Your task to perform on an android device: Find coffee shops on Maps Image 0: 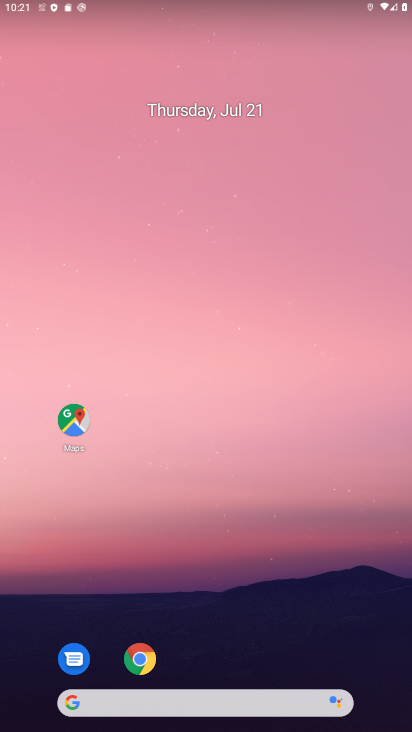
Step 0: drag from (181, 671) to (173, 157)
Your task to perform on an android device: Find coffee shops on Maps Image 1: 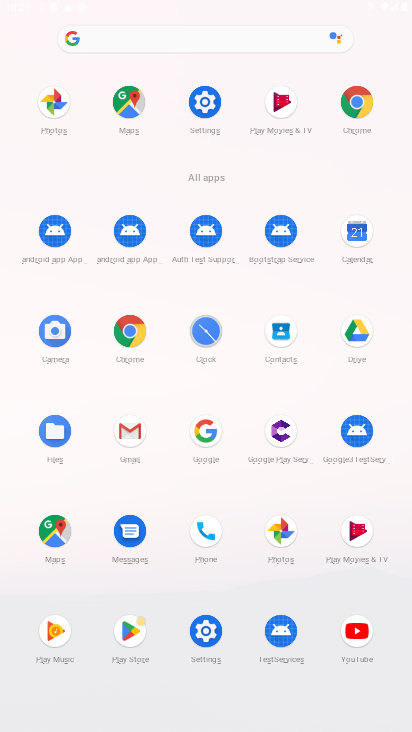
Step 1: click (60, 524)
Your task to perform on an android device: Find coffee shops on Maps Image 2: 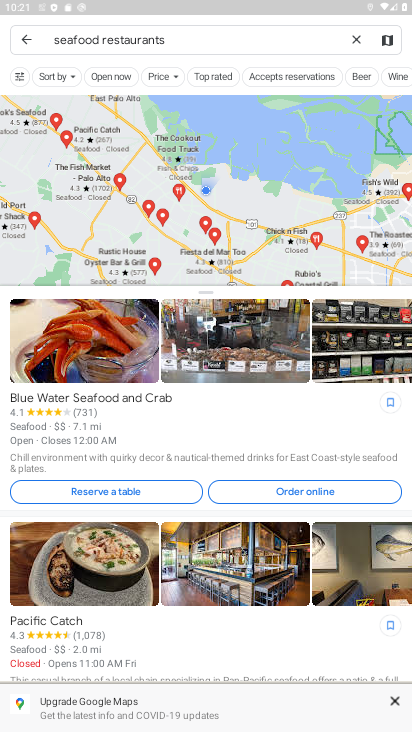
Step 2: click (356, 35)
Your task to perform on an android device: Find coffee shops on Maps Image 3: 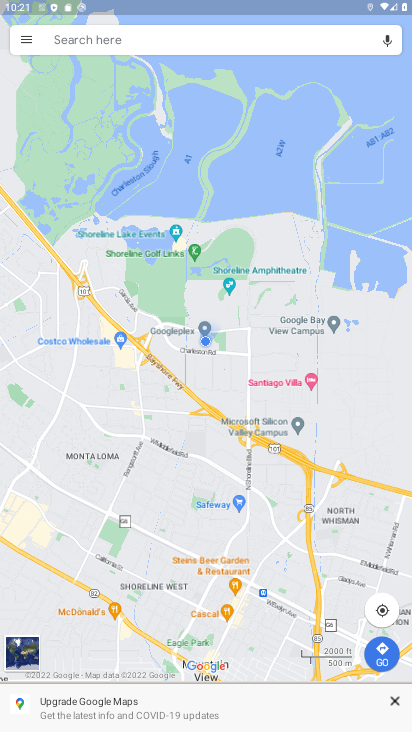
Step 3: click (239, 29)
Your task to perform on an android device: Find coffee shops on Maps Image 4: 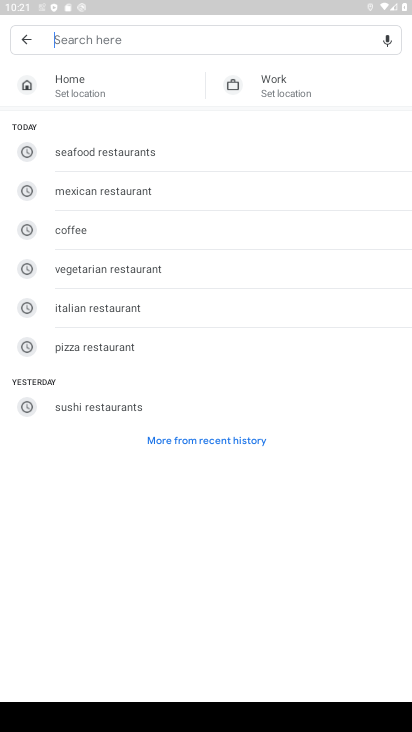
Step 4: click (61, 219)
Your task to perform on an android device: Find coffee shops on Maps Image 5: 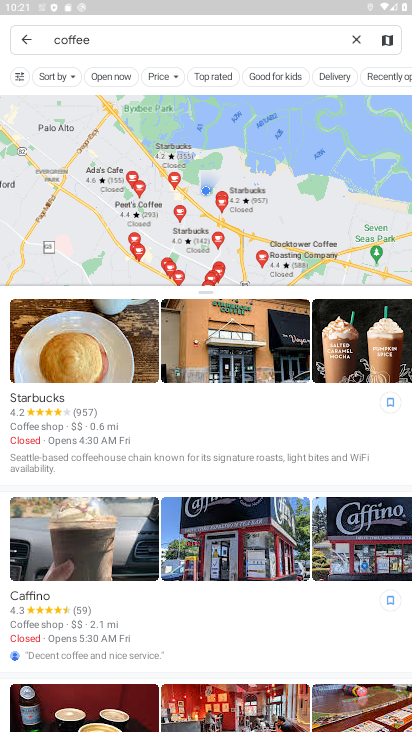
Step 5: task complete